Your task to perform on an android device: install app "LinkedIn" Image 0: 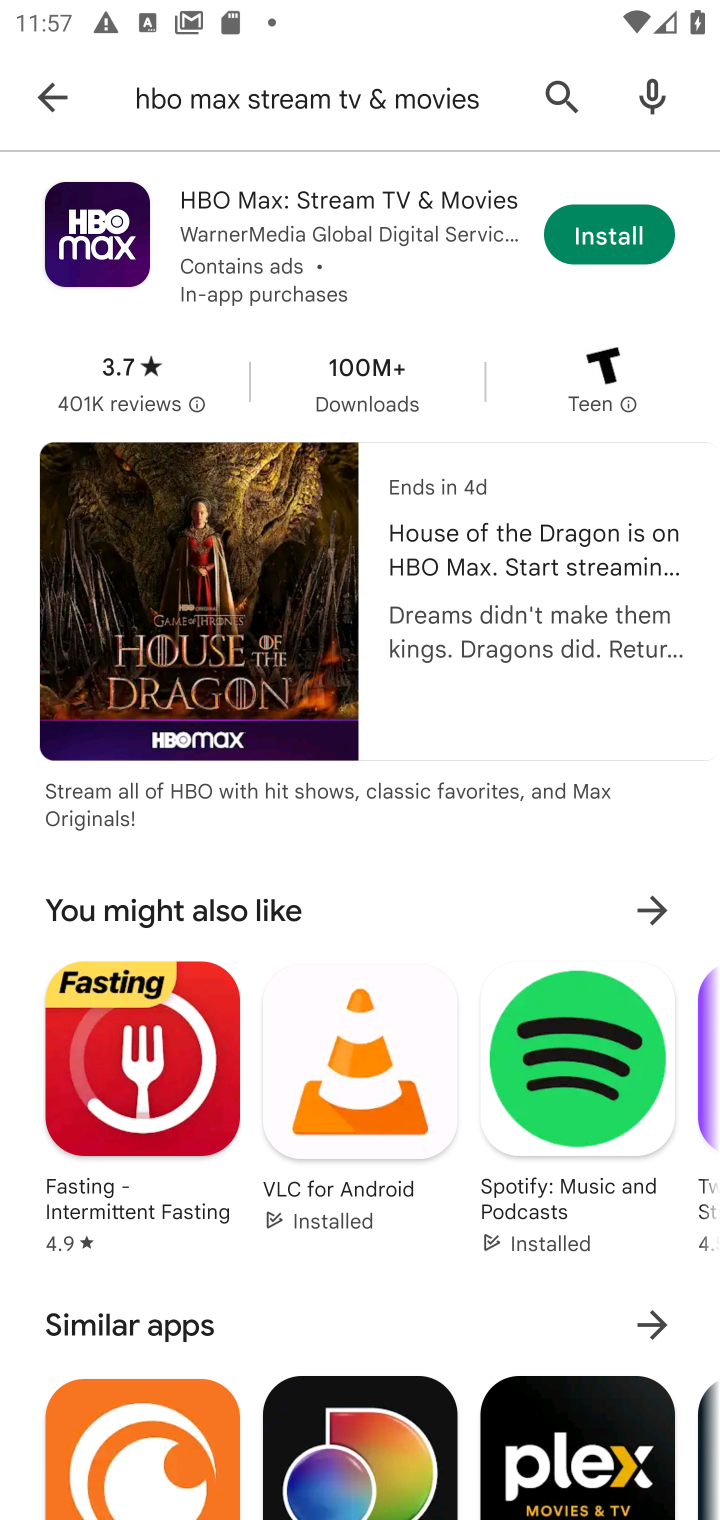
Step 0: press home button
Your task to perform on an android device: install app "LinkedIn" Image 1: 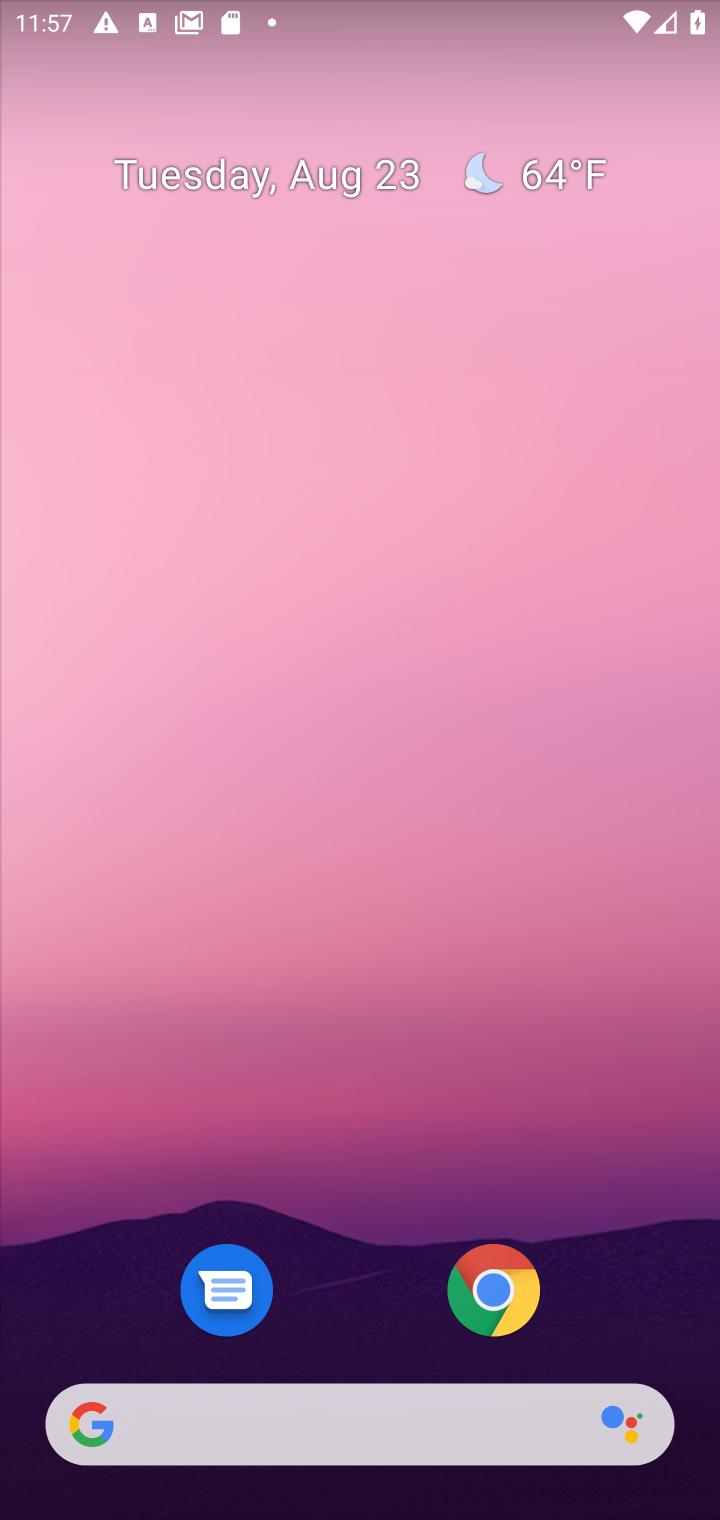
Step 1: drag from (357, 599) to (355, 239)
Your task to perform on an android device: install app "LinkedIn" Image 2: 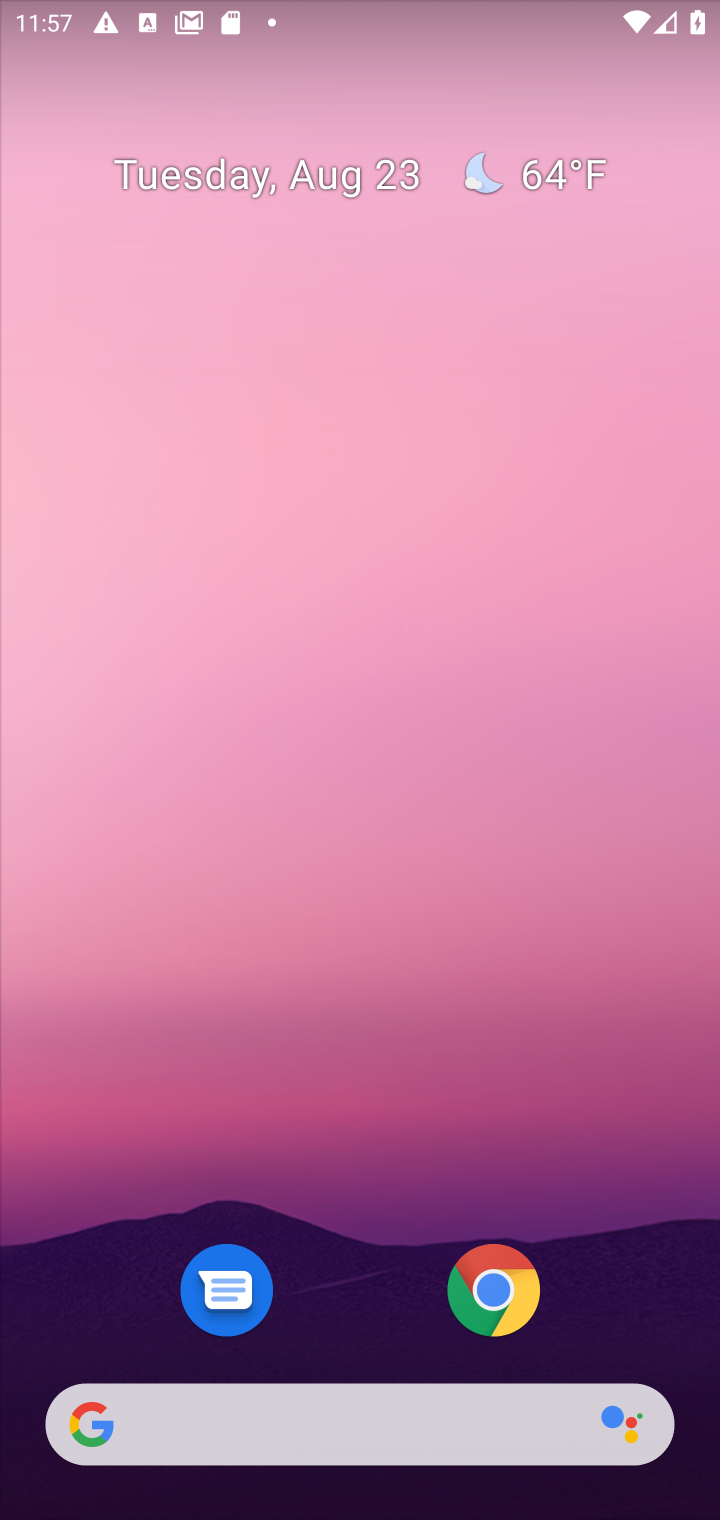
Step 2: drag from (386, 555) to (386, 131)
Your task to perform on an android device: install app "LinkedIn" Image 3: 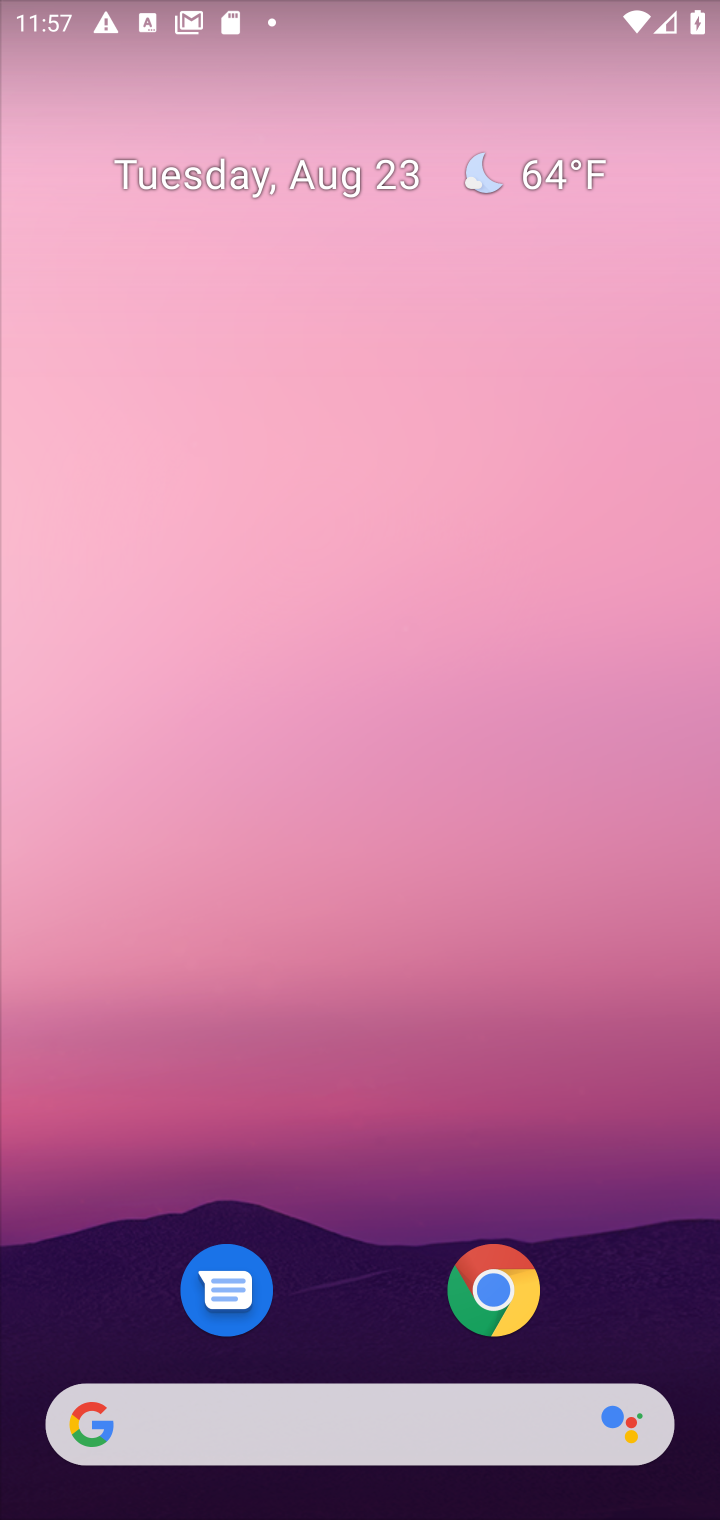
Step 3: drag from (342, 1242) to (277, 162)
Your task to perform on an android device: install app "LinkedIn" Image 4: 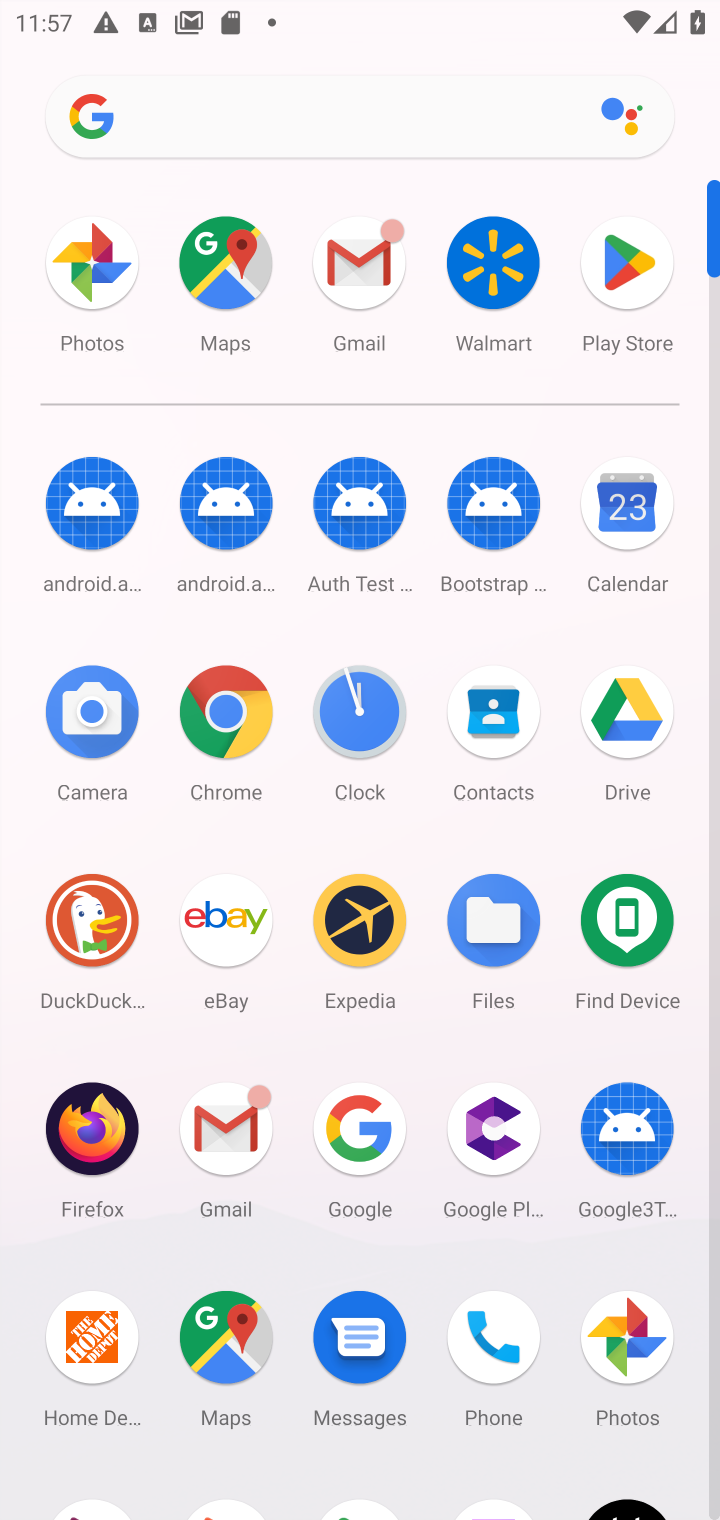
Step 4: click (629, 264)
Your task to perform on an android device: install app "LinkedIn" Image 5: 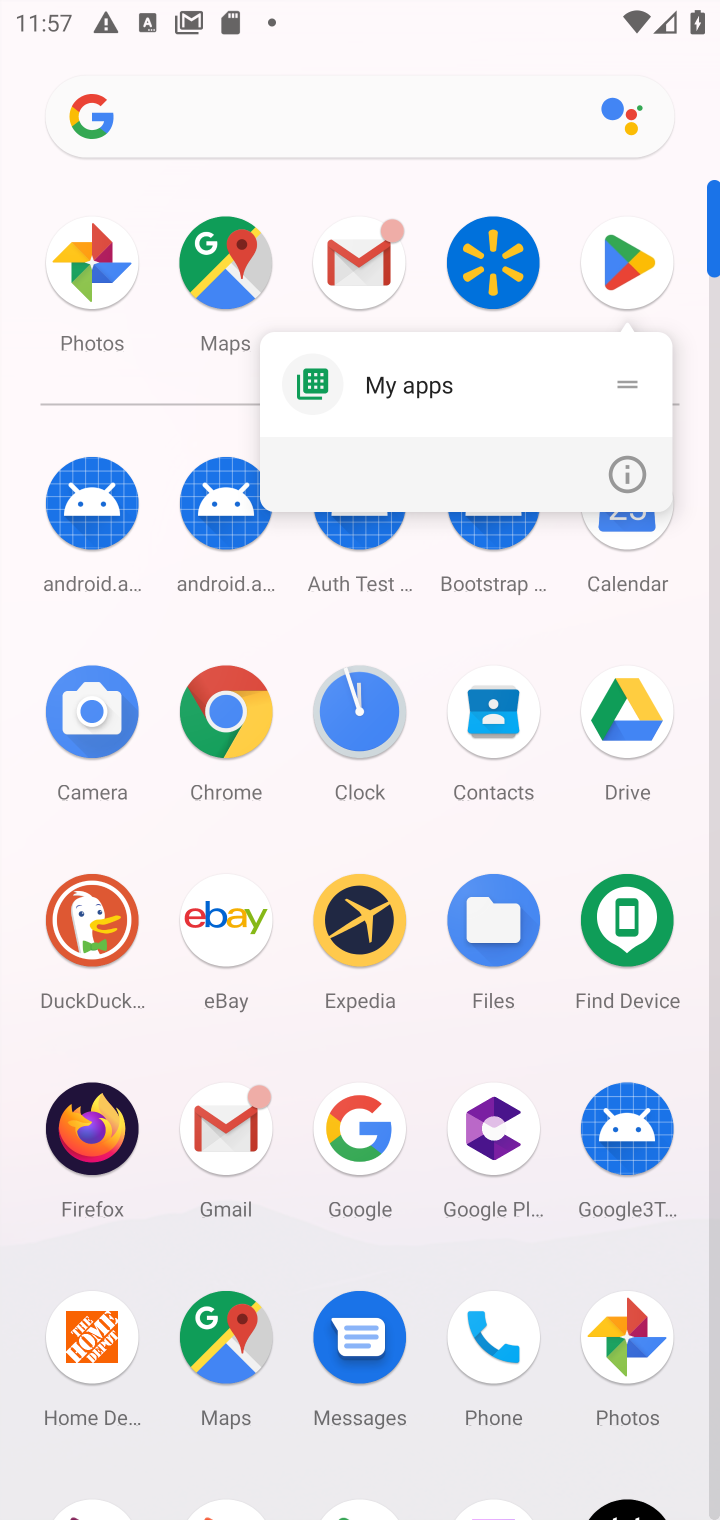
Step 5: click (625, 264)
Your task to perform on an android device: install app "LinkedIn" Image 6: 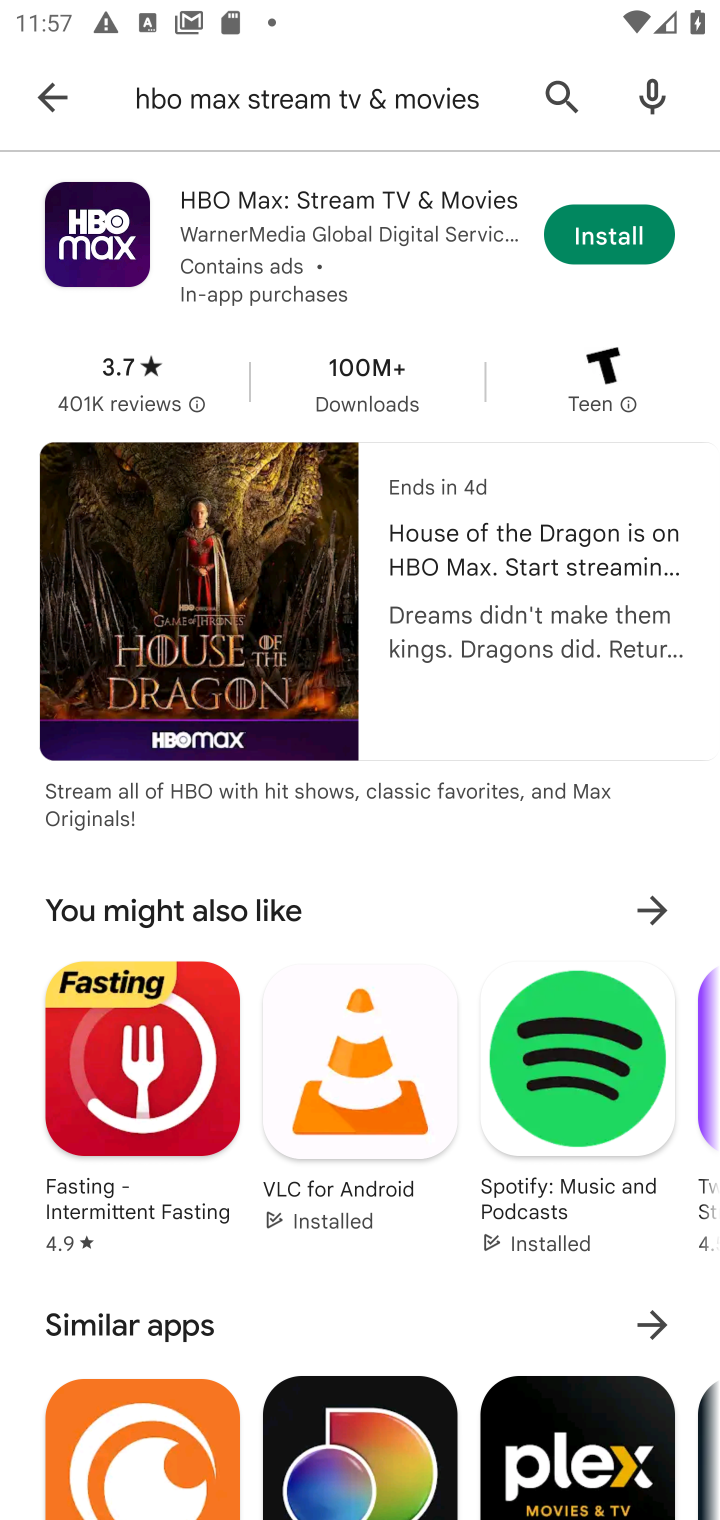
Step 6: click (548, 94)
Your task to perform on an android device: install app "LinkedIn" Image 7: 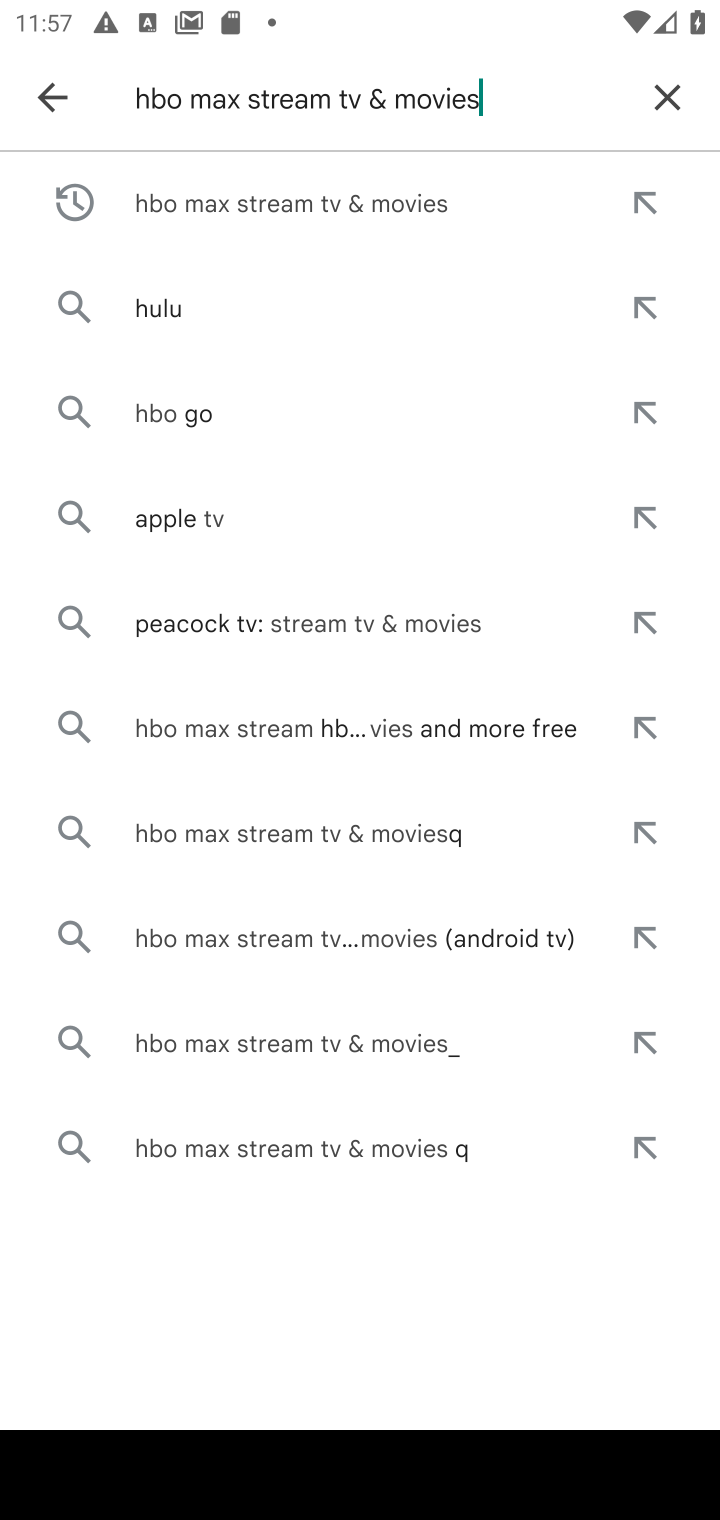
Step 7: click (661, 91)
Your task to perform on an android device: install app "LinkedIn" Image 8: 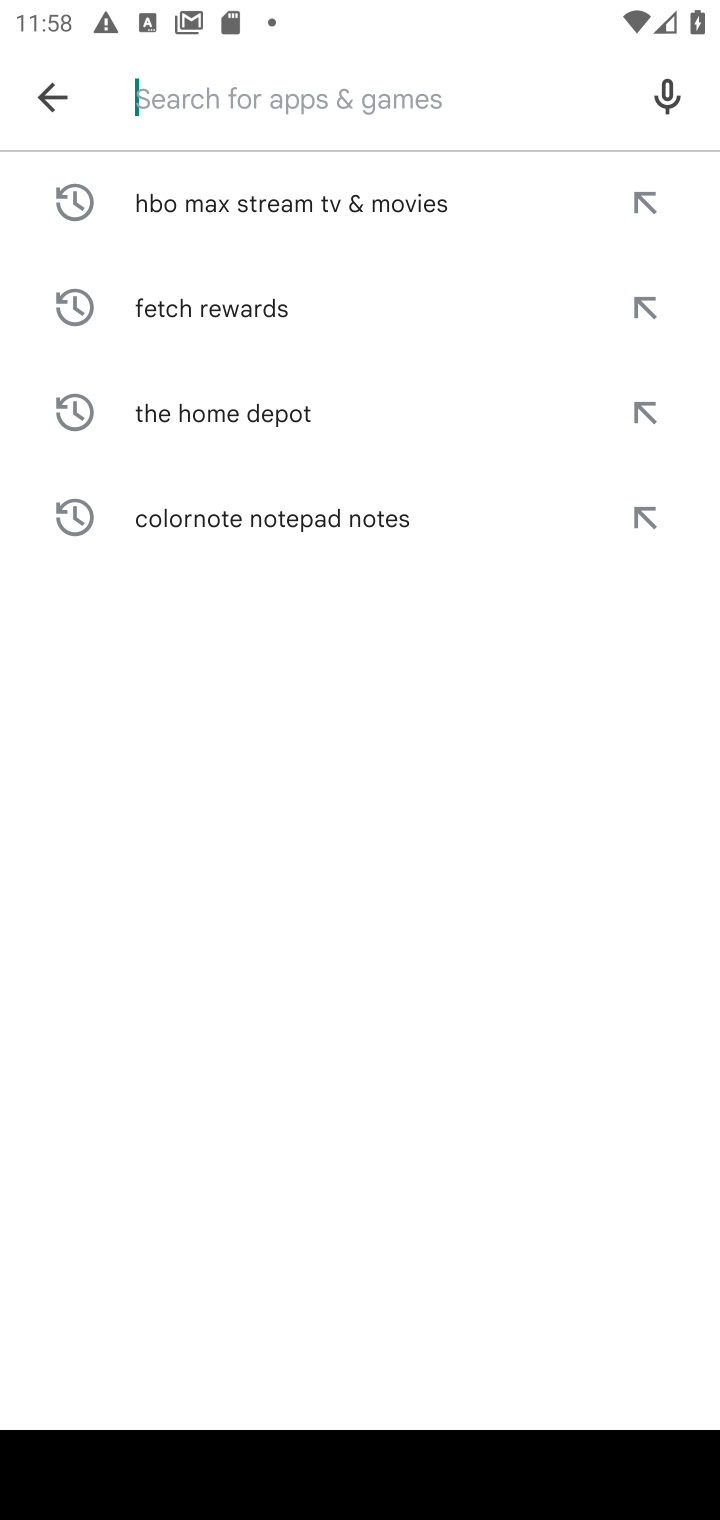
Step 8: type "LinkedIn"
Your task to perform on an android device: install app "LinkedIn" Image 9: 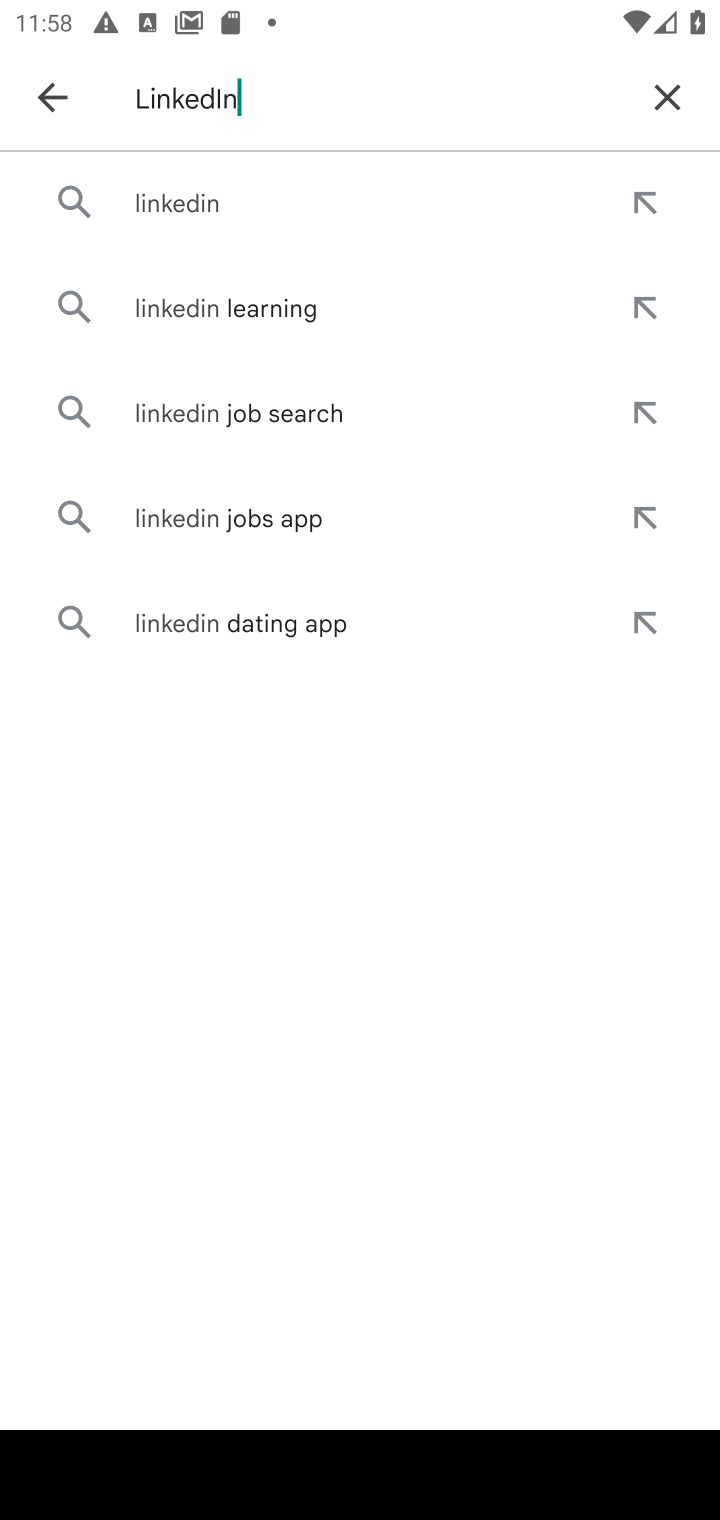
Step 9: click (158, 207)
Your task to perform on an android device: install app "LinkedIn" Image 10: 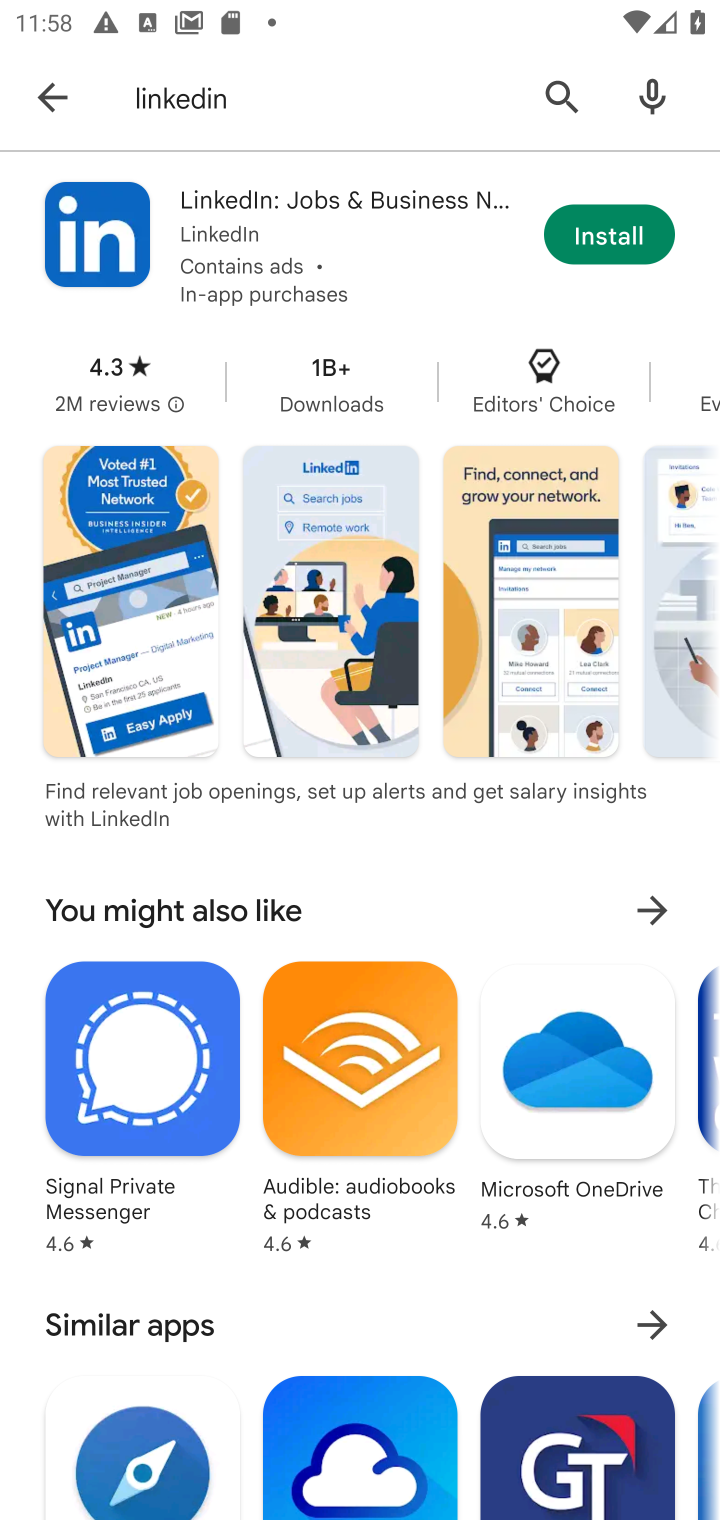
Step 10: click (606, 244)
Your task to perform on an android device: install app "LinkedIn" Image 11: 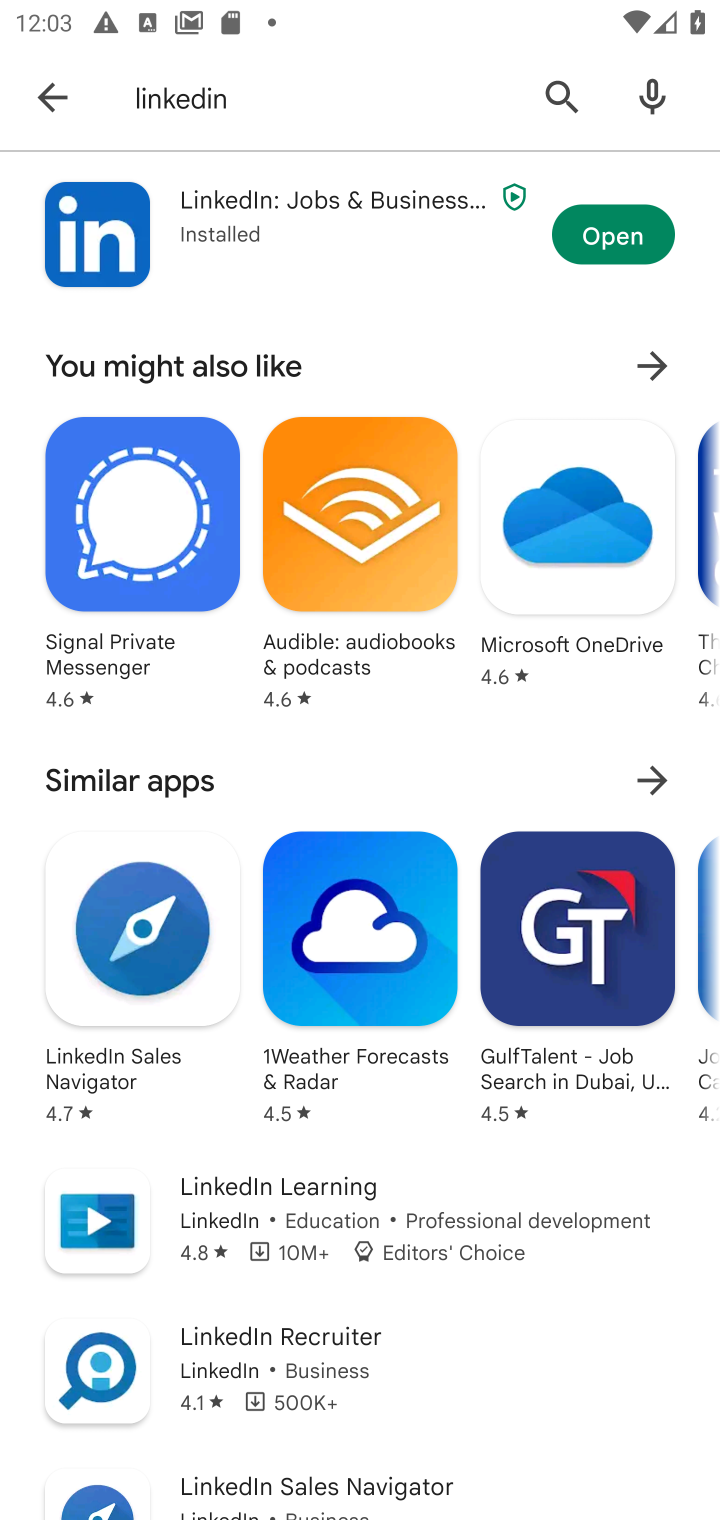
Step 11: task complete